Your task to perform on an android device: turn off notifications settings in the gmail app Image 0: 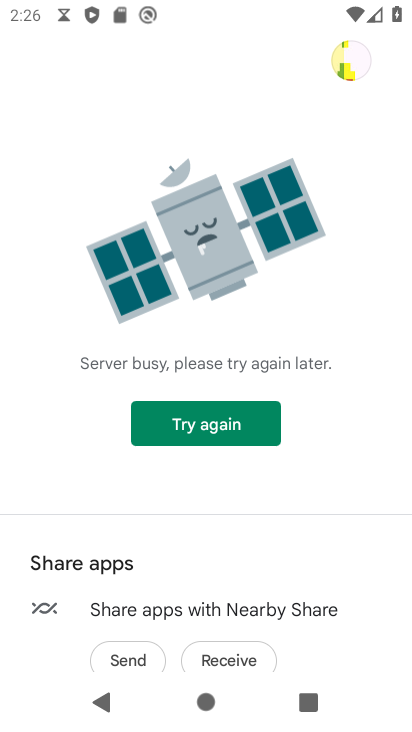
Step 0: press back button
Your task to perform on an android device: turn off notifications settings in the gmail app Image 1: 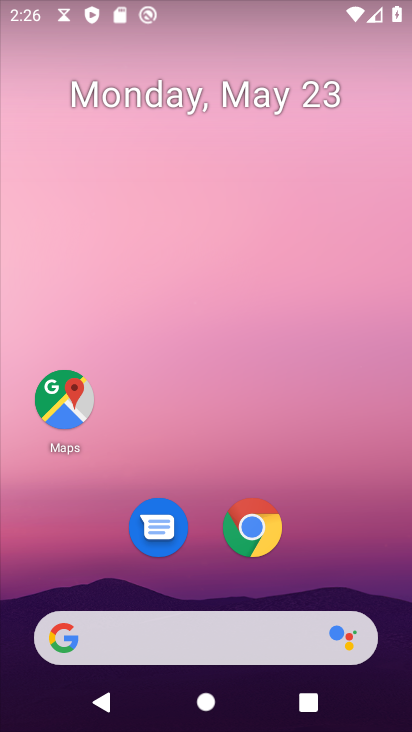
Step 1: drag from (344, 582) to (286, 5)
Your task to perform on an android device: turn off notifications settings in the gmail app Image 2: 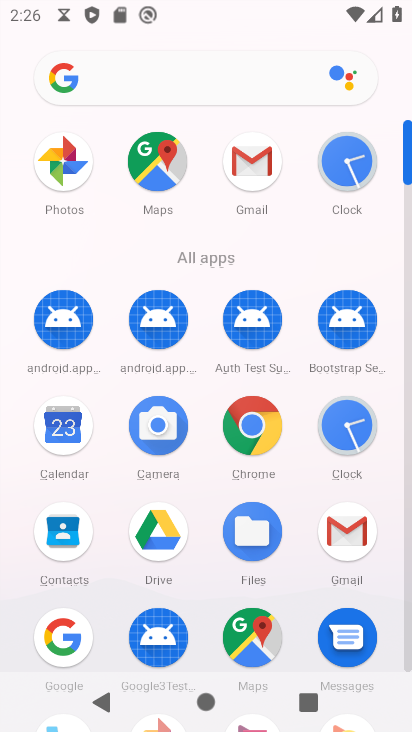
Step 2: click (250, 154)
Your task to perform on an android device: turn off notifications settings in the gmail app Image 3: 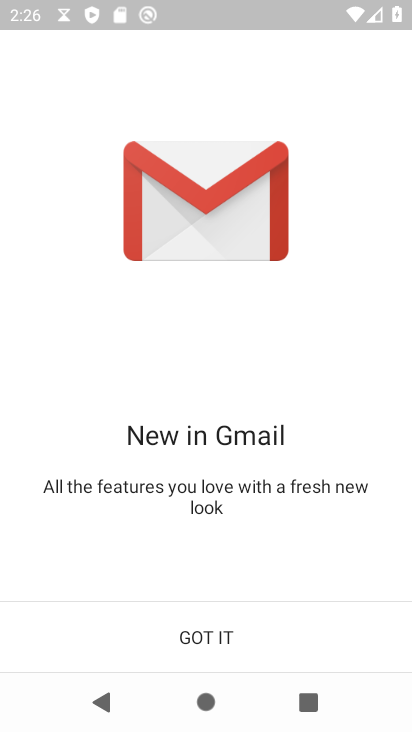
Step 3: click (218, 621)
Your task to perform on an android device: turn off notifications settings in the gmail app Image 4: 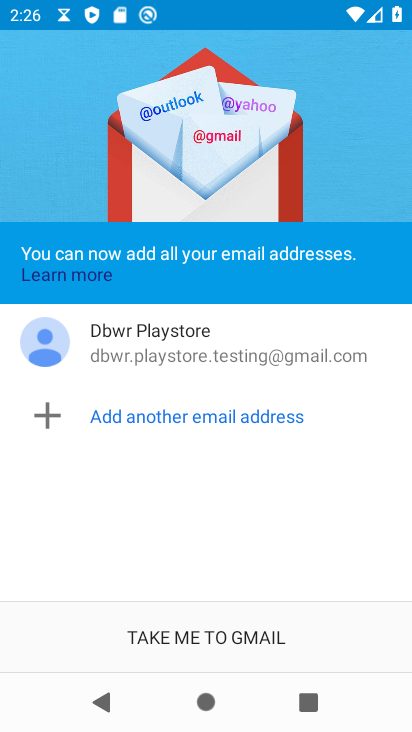
Step 4: click (218, 645)
Your task to perform on an android device: turn off notifications settings in the gmail app Image 5: 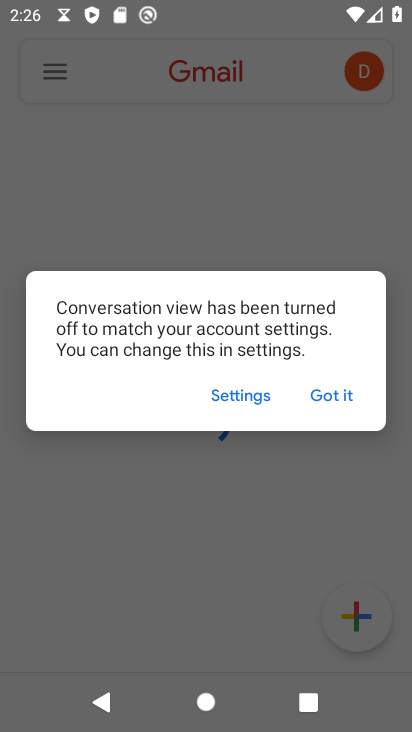
Step 5: click (314, 390)
Your task to perform on an android device: turn off notifications settings in the gmail app Image 6: 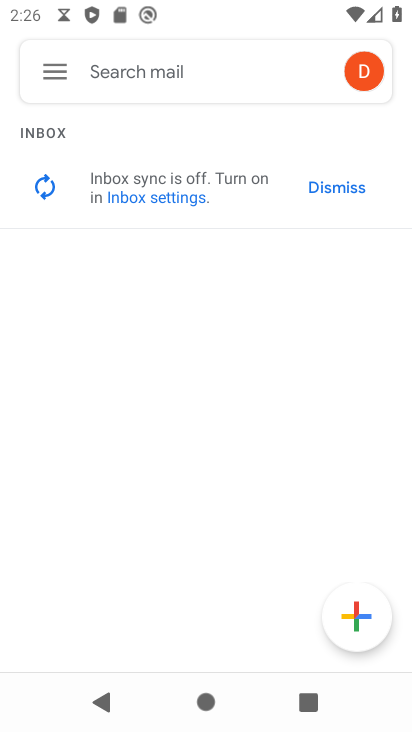
Step 6: click (54, 52)
Your task to perform on an android device: turn off notifications settings in the gmail app Image 7: 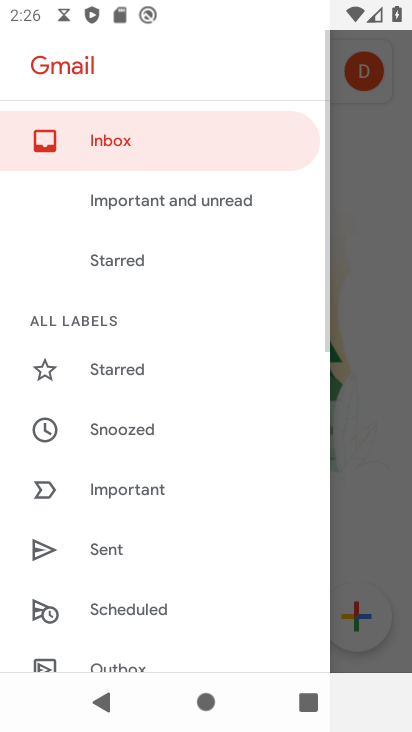
Step 7: drag from (177, 503) to (204, 138)
Your task to perform on an android device: turn off notifications settings in the gmail app Image 8: 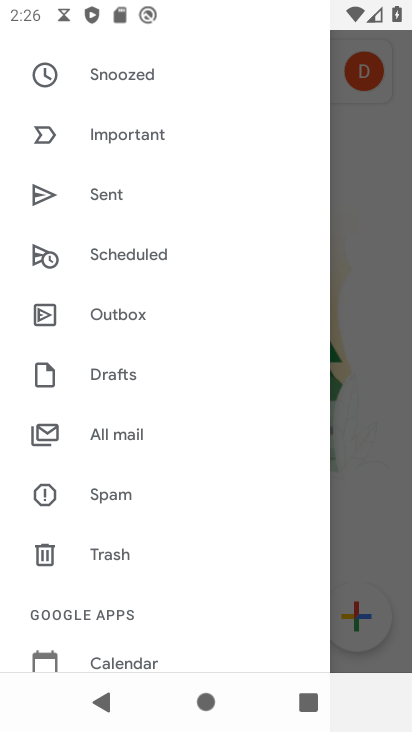
Step 8: drag from (188, 434) to (188, 111)
Your task to perform on an android device: turn off notifications settings in the gmail app Image 9: 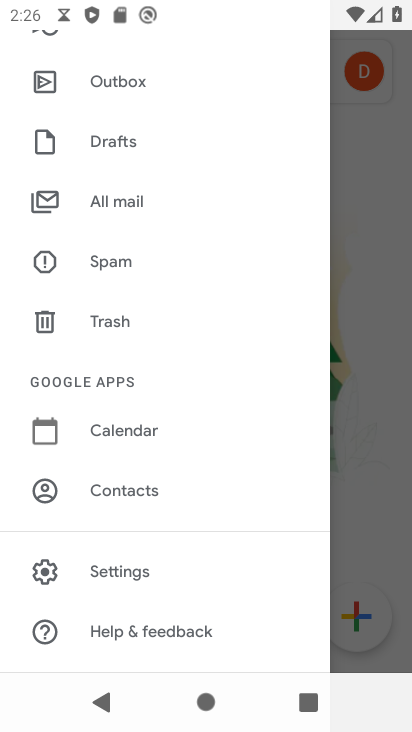
Step 9: click (156, 571)
Your task to perform on an android device: turn off notifications settings in the gmail app Image 10: 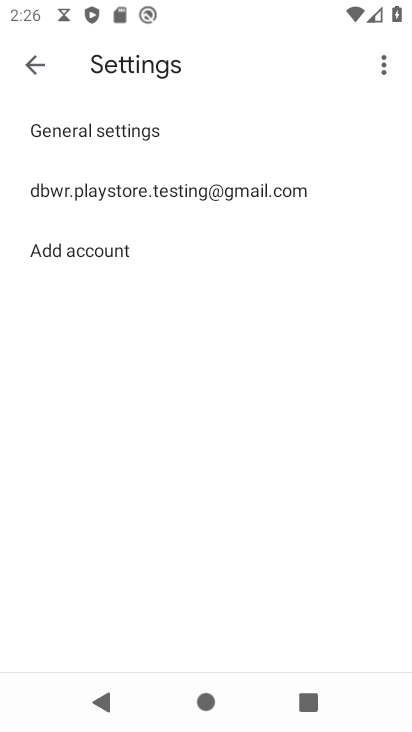
Step 10: click (178, 195)
Your task to perform on an android device: turn off notifications settings in the gmail app Image 11: 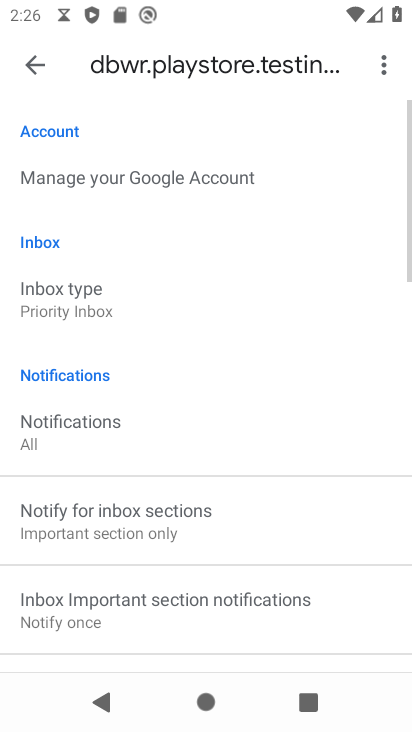
Step 11: drag from (211, 565) to (245, 199)
Your task to perform on an android device: turn off notifications settings in the gmail app Image 12: 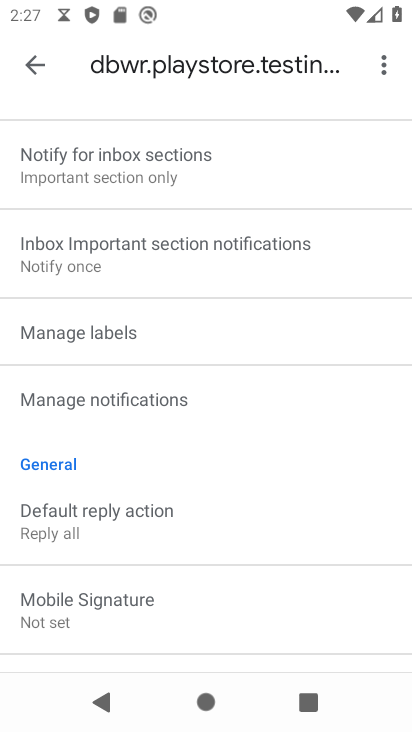
Step 12: click (139, 390)
Your task to perform on an android device: turn off notifications settings in the gmail app Image 13: 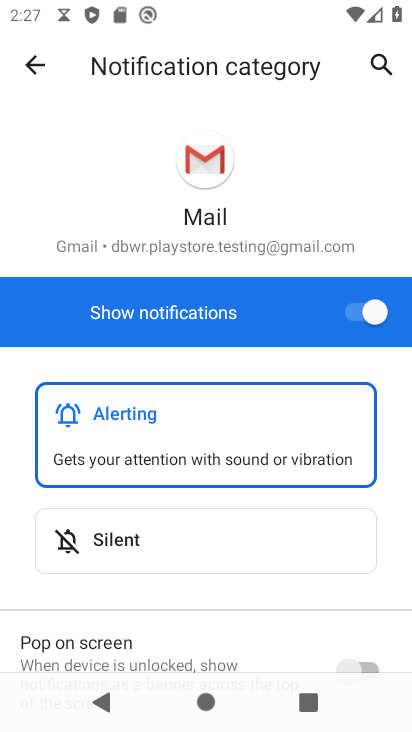
Step 13: click (358, 313)
Your task to perform on an android device: turn off notifications settings in the gmail app Image 14: 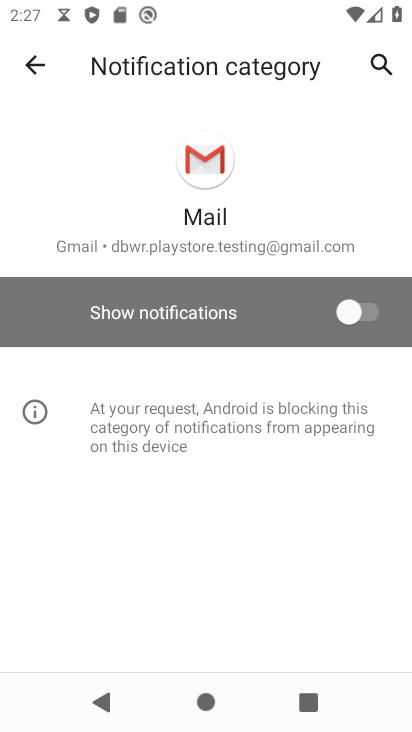
Step 14: task complete